Your task to perform on an android device: turn off data saver in the chrome app Image 0: 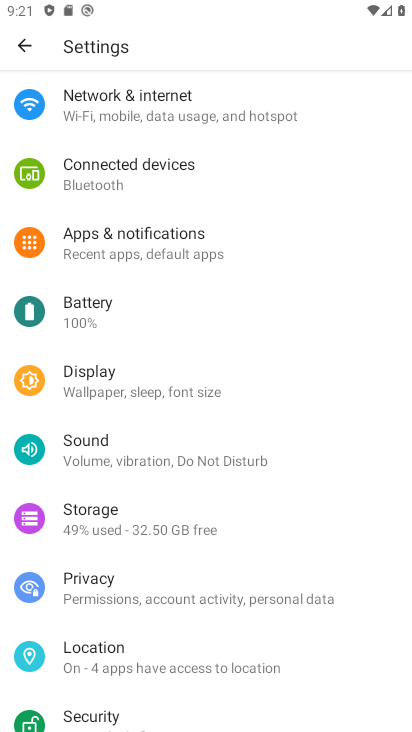
Step 0: press back button
Your task to perform on an android device: turn off data saver in the chrome app Image 1: 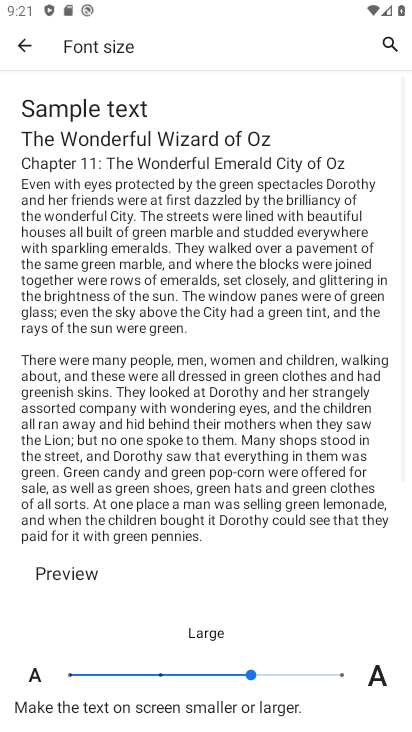
Step 1: press back button
Your task to perform on an android device: turn off data saver in the chrome app Image 2: 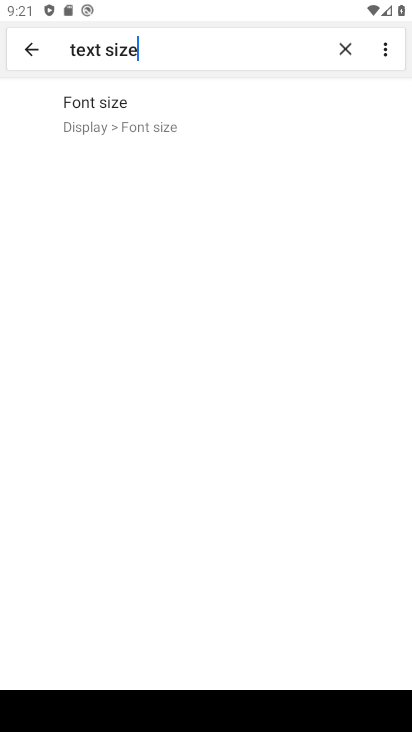
Step 2: press home button
Your task to perform on an android device: turn off data saver in the chrome app Image 3: 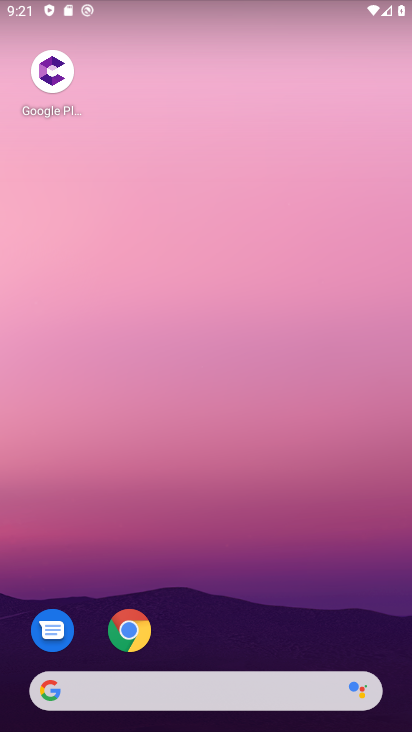
Step 3: click (129, 635)
Your task to perform on an android device: turn off data saver in the chrome app Image 4: 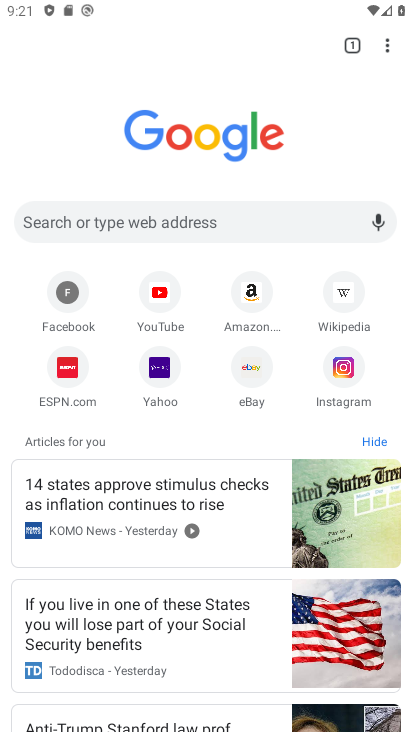
Step 4: drag from (383, 41) to (213, 384)
Your task to perform on an android device: turn off data saver in the chrome app Image 5: 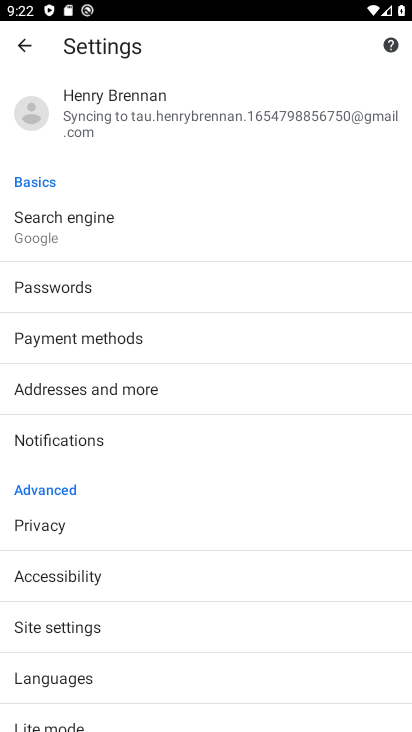
Step 5: click (69, 724)
Your task to perform on an android device: turn off data saver in the chrome app Image 6: 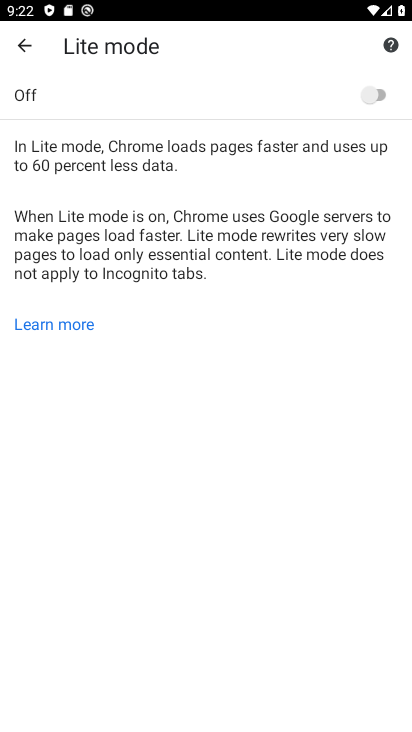
Step 6: task complete